Your task to perform on an android device: set default search engine in the chrome app Image 0: 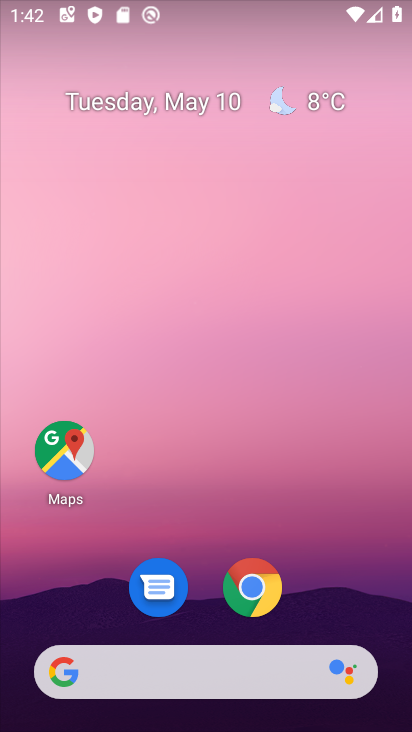
Step 0: click (255, 579)
Your task to perform on an android device: set default search engine in the chrome app Image 1: 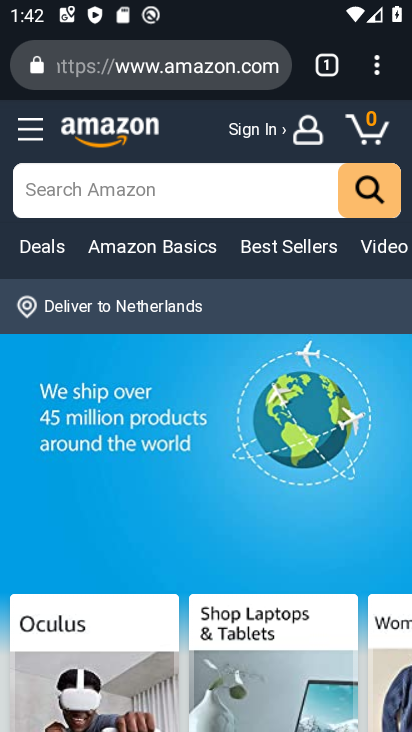
Step 1: click (384, 65)
Your task to perform on an android device: set default search engine in the chrome app Image 2: 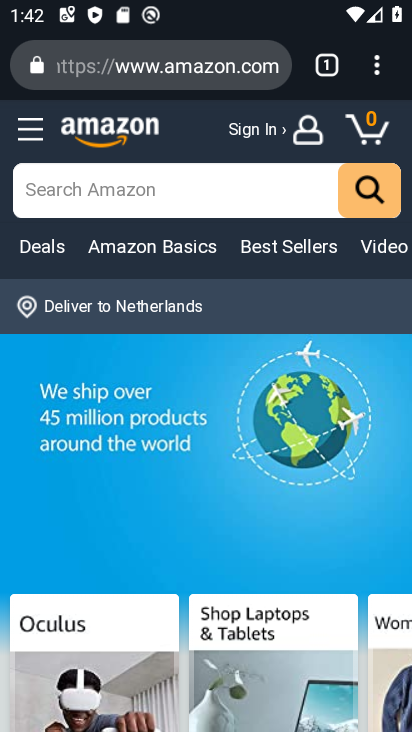
Step 2: click (377, 79)
Your task to perform on an android device: set default search engine in the chrome app Image 3: 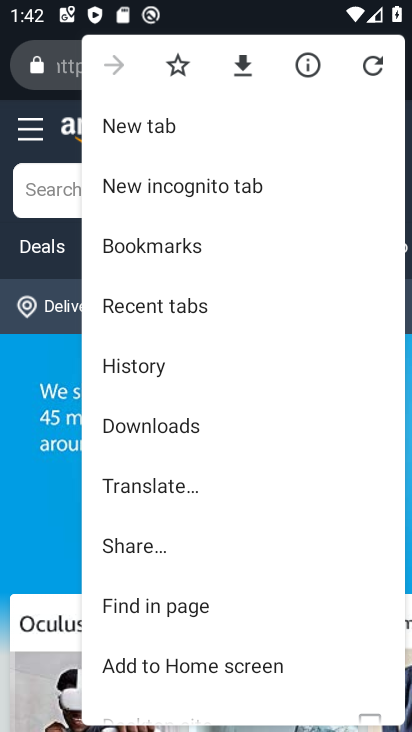
Step 3: drag from (181, 574) to (192, 301)
Your task to perform on an android device: set default search engine in the chrome app Image 4: 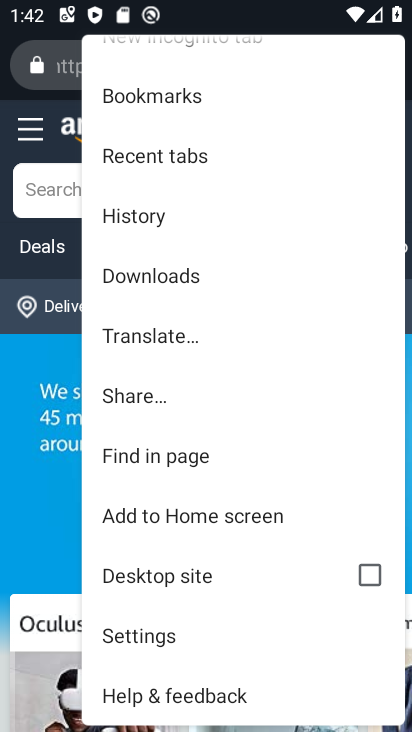
Step 4: click (184, 624)
Your task to perform on an android device: set default search engine in the chrome app Image 5: 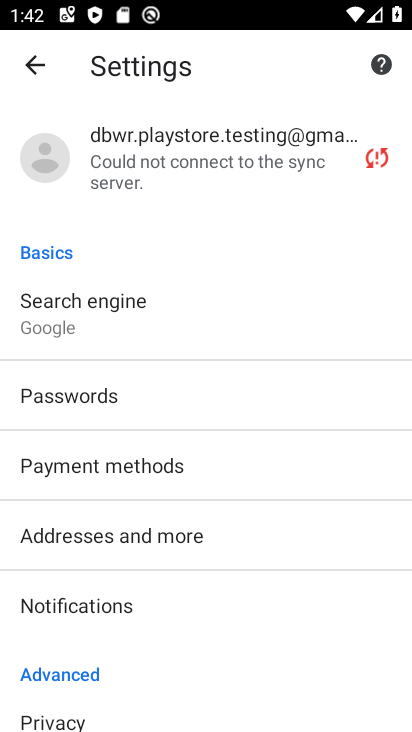
Step 5: click (142, 318)
Your task to perform on an android device: set default search engine in the chrome app Image 6: 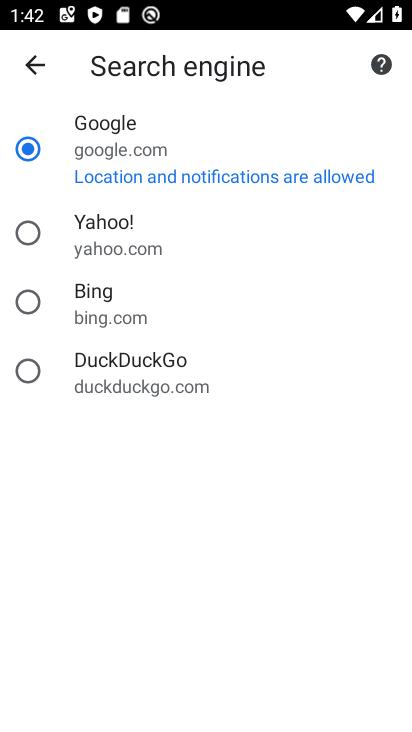
Step 6: click (102, 238)
Your task to perform on an android device: set default search engine in the chrome app Image 7: 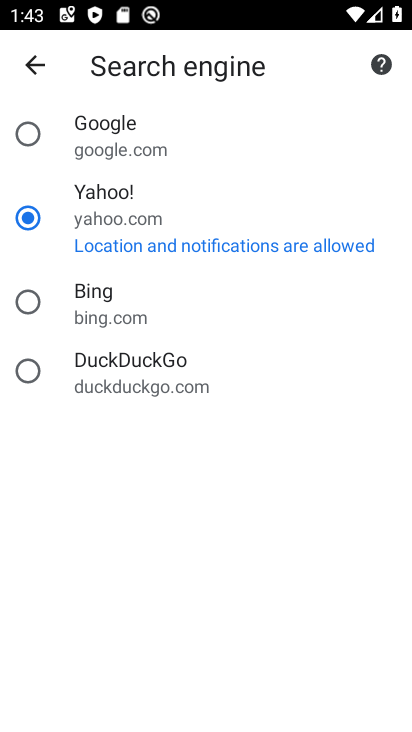
Step 7: task complete